Your task to perform on an android device: Open Chrome and go to the settings page Image 0: 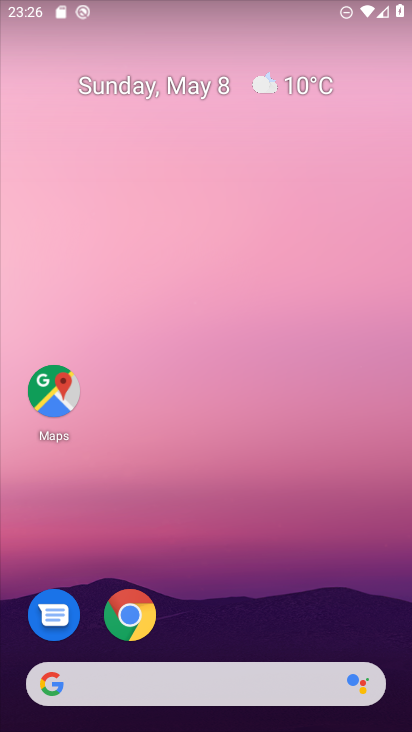
Step 0: drag from (255, 618) to (288, 100)
Your task to perform on an android device: Open Chrome and go to the settings page Image 1: 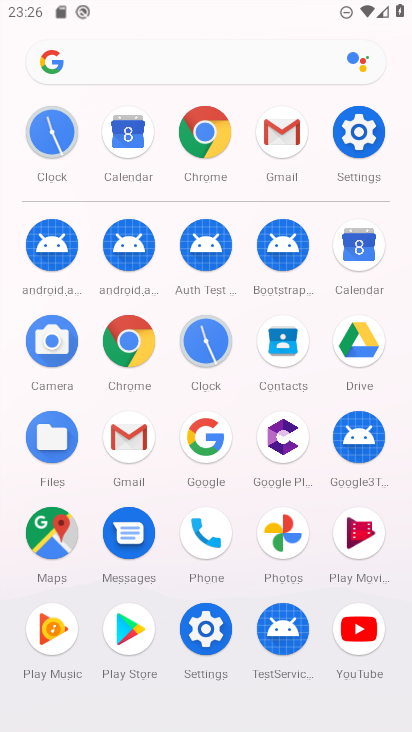
Step 1: click (129, 340)
Your task to perform on an android device: Open Chrome and go to the settings page Image 2: 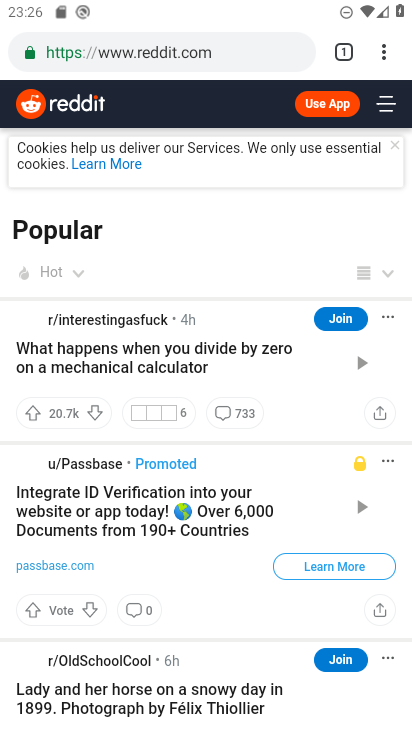
Step 2: click (386, 46)
Your task to perform on an android device: Open Chrome and go to the settings page Image 3: 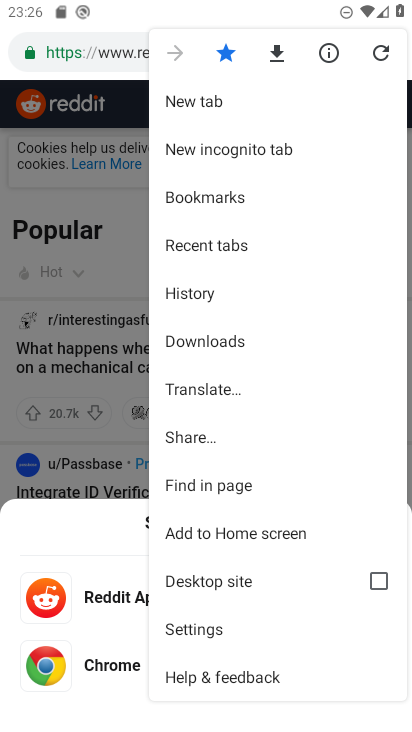
Step 3: click (219, 625)
Your task to perform on an android device: Open Chrome and go to the settings page Image 4: 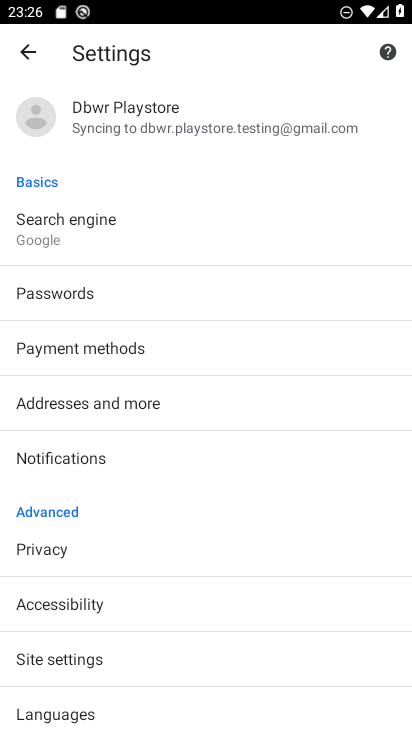
Step 4: task complete